Your task to perform on an android device: open device folders in google photos Image 0: 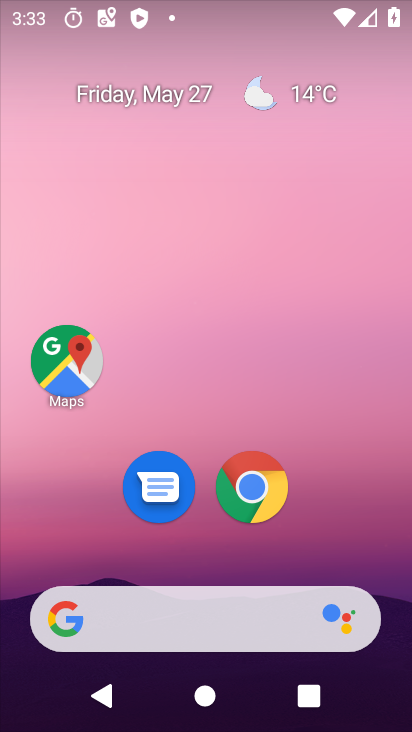
Step 0: drag from (333, 259) to (280, 100)
Your task to perform on an android device: open device folders in google photos Image 1: 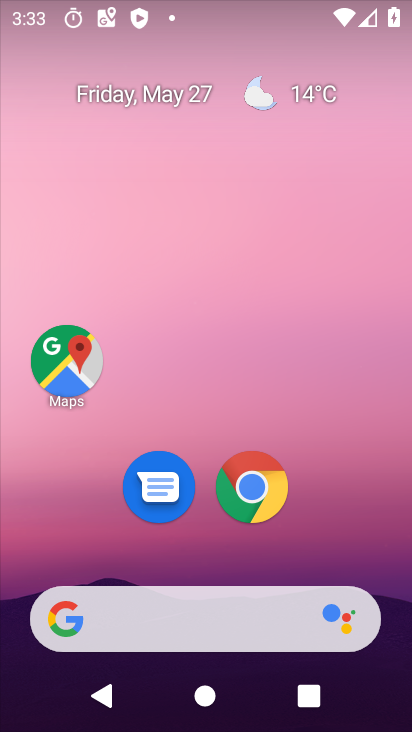
Step 1: drag from (390, 530) to (260, 116)
Your task to perform on an android device: open device folders in google photos Image 2: 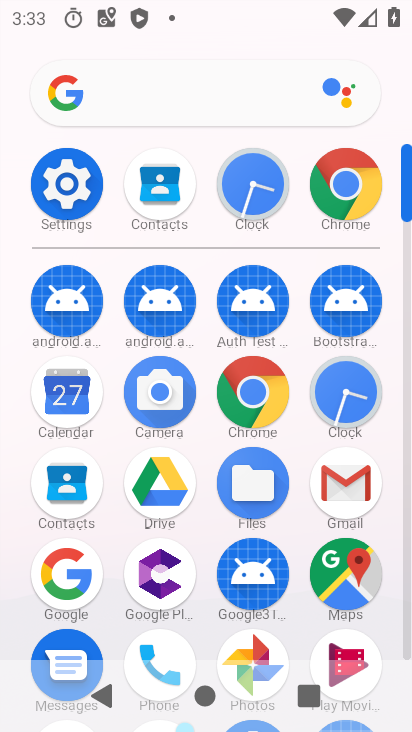
Step 2: click (241, 655)
Your task to perform on an android device: open device folders in google photos Image 3: 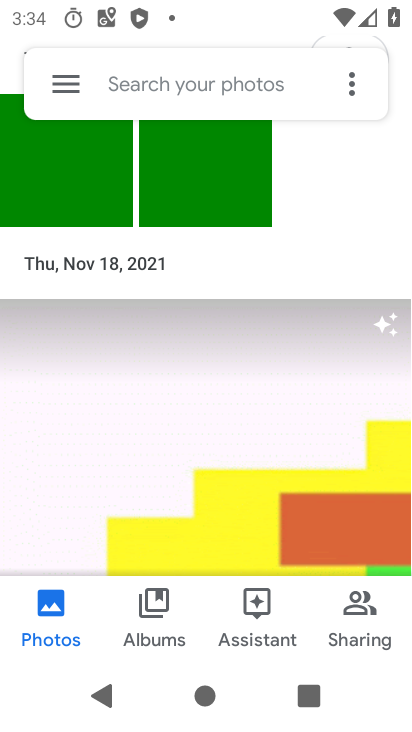
Step 3: click (44, 65)
Your task to perform on an android device: open device folders in google photos Image 4: 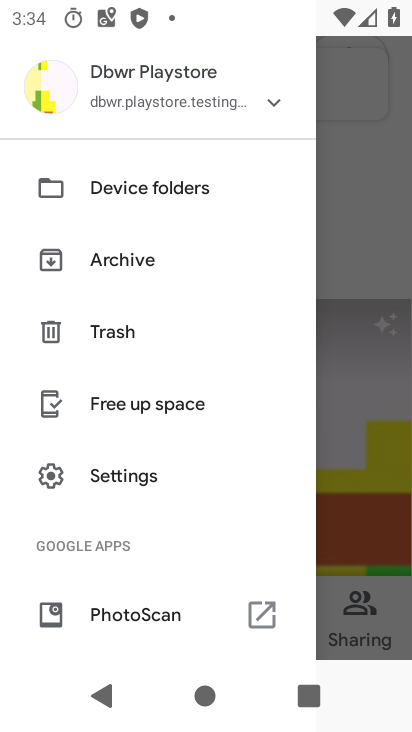
Step 4: click (171, 190)
Your task to perform on an android device: open device folders in google photos Image 5: 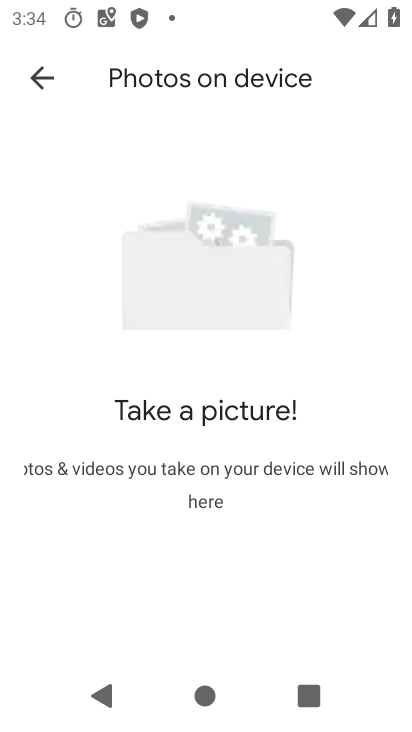
Step 5: task complete